Your task to perform on an android device: How much does a 3 bedroom apartment rent for in Denver? Image 0: 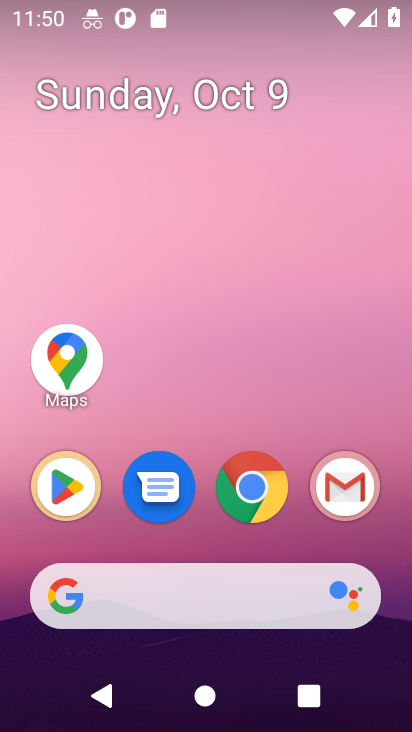
Step 0: click (249, 505)
Your task to perform on an android device: How much does a 3 bedroom apartment rent for in Denver? Image 1: 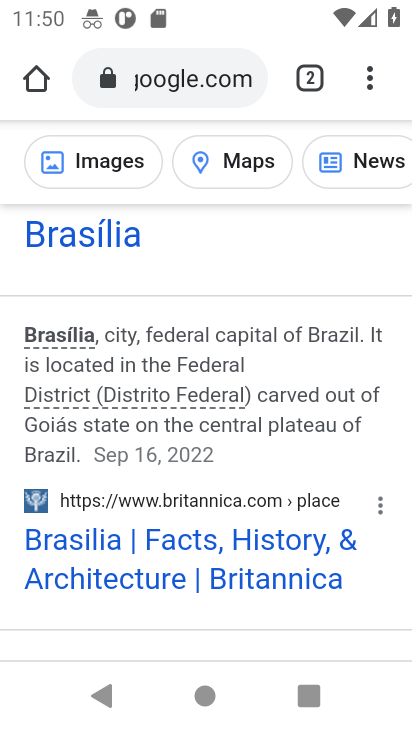
Step 1: click (182, 85)
Your task to perform on an android device: How much does a 3 bedroom apartment rent for in Denver? Image 2: 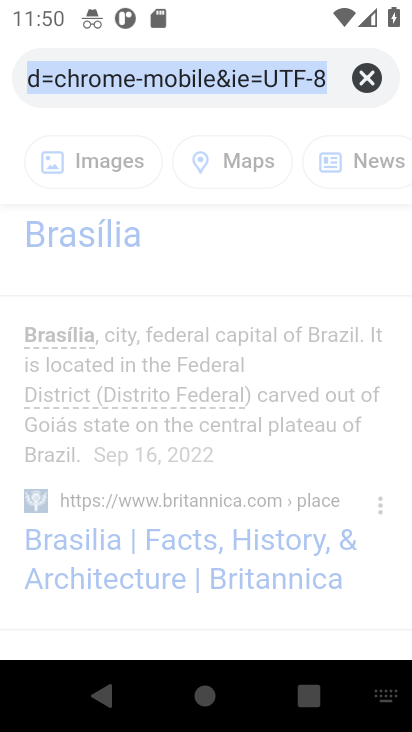
Step 2: type "3 bedroom apartment rent in denver"
Your task to perform on an android device: How much does a 3 bedroom apartment rent for in Denver? Image 3: 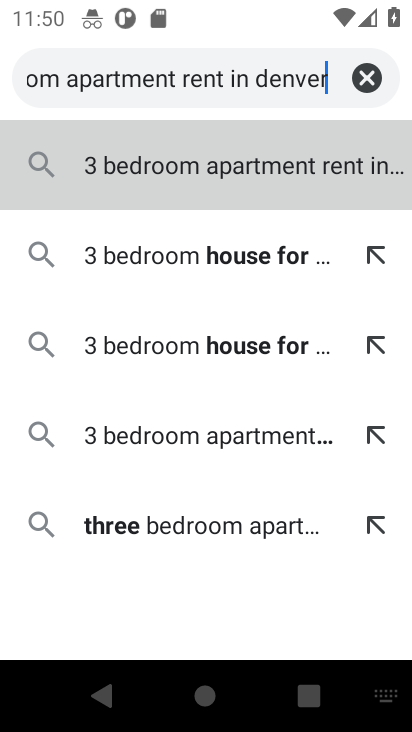
Step 3: type ""
Your task to perform on an android device: How much does a 3 bedroom apartment rent for in Denver? Image 4: 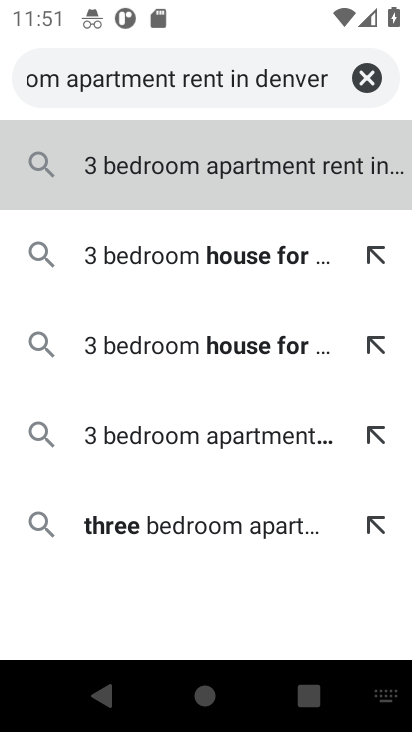
Step 4: press enter
Your task to perform on an android device: How much does a 3 bedroom apartment rent for in Denver? Image 5: 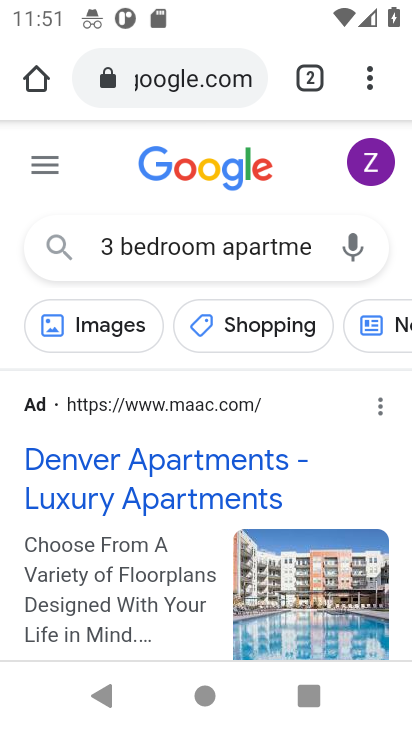
Step 5: drag from (149, 580) to (130, 130)
Your task to perform on an android device: How much does a 3 bedroom apartment rent for in Denver? Image 6: 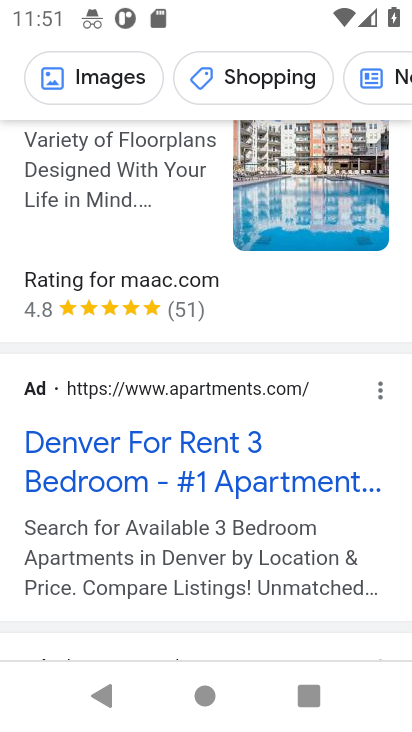
Step 6: click (191, 483)
Your task to perform on an android device: How much does a 3 bedroom apartment rent for in Denver? Image 7: 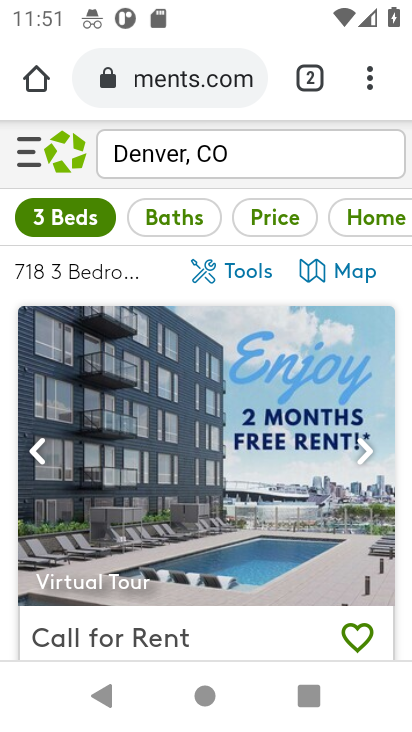
Step 7: task complete